Your task to perform on an android device: turn off translation in the chrome app Image 0: 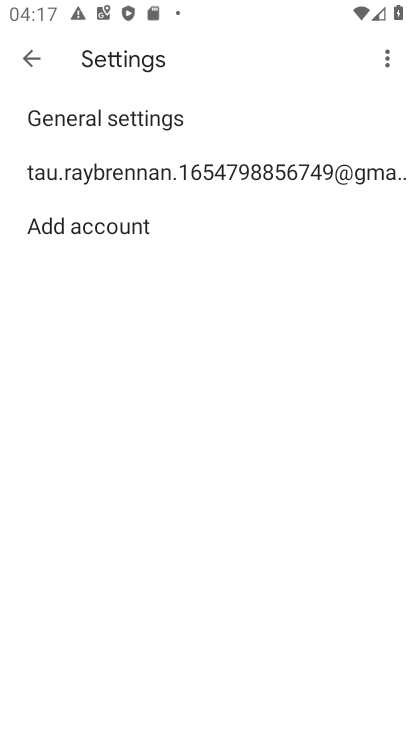
Step 0: press home button
Your task to perform on an android device: turn off translation in the chrome app Image 1: 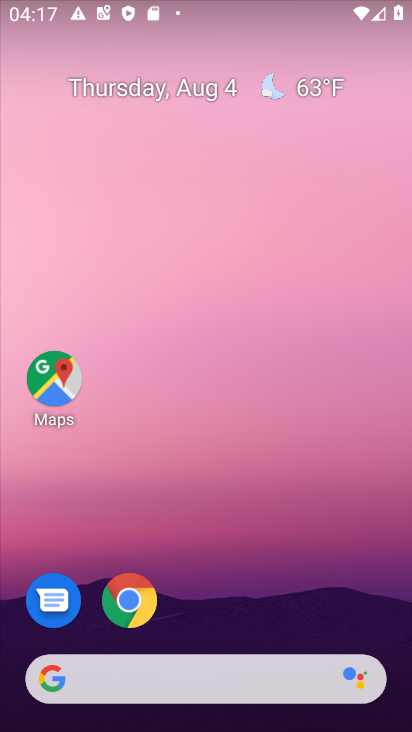
Step 1: drag from (274, 619) to (260, 151)
Your task to perform on an android device: turn off translation in the chrome app Image 2: 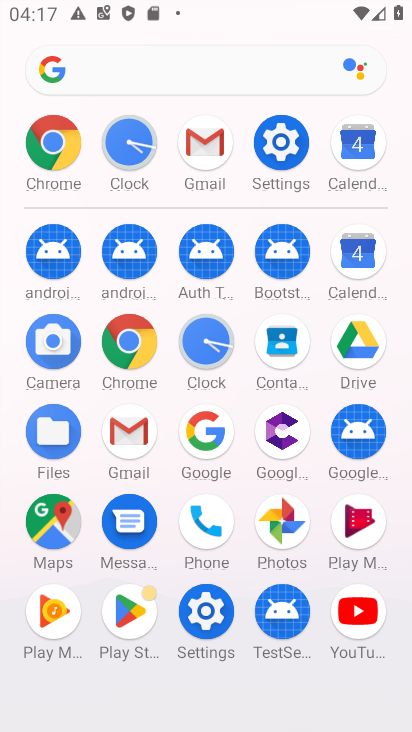
Step 2: click (124, 349)
Your task to perform on an android device: turn off translation in the chrome app Image 3: 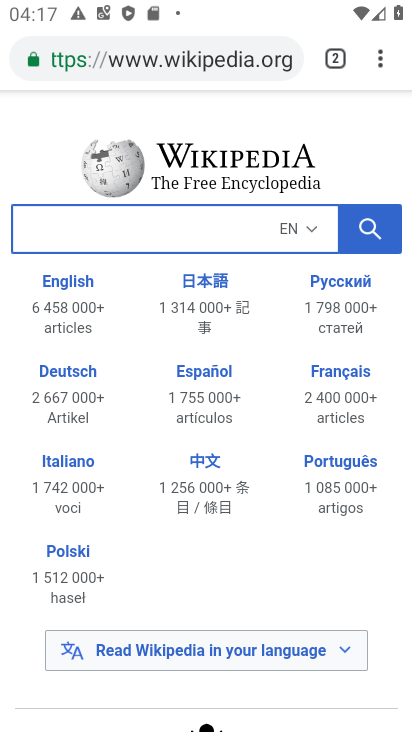
Step 3: drag from (381, 62) to (234, 636)
Your task to perform on an android device: turn off translation in the chrome app Image 4: 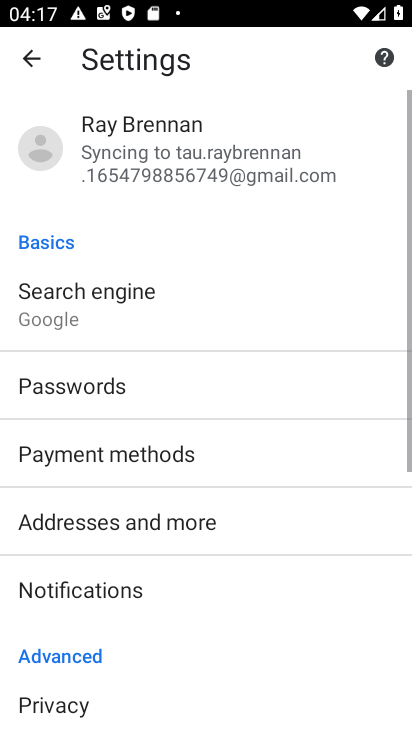
Step 4: drag from (234, 628) to (264, 168)
Your task to perform on an android device: turn off translation in the chrome app Image 5: 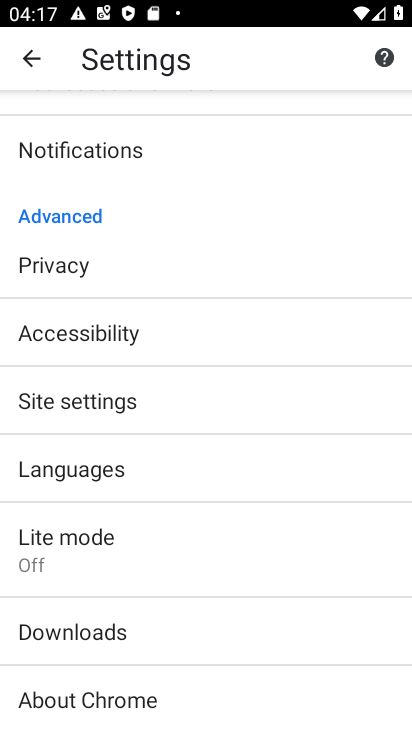
Step 5: click (102, 478)
Your task to perform on an android device: turn off translation in the chrome app Image 6: 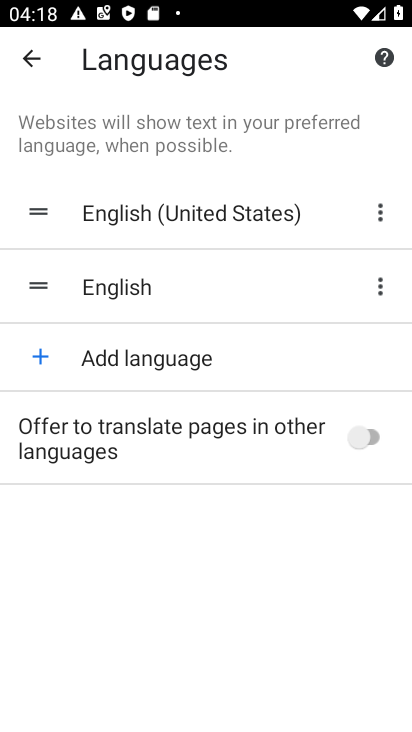
Step 6: task complete